Your task to perform on an android device: open device folders in google photos Image 0: 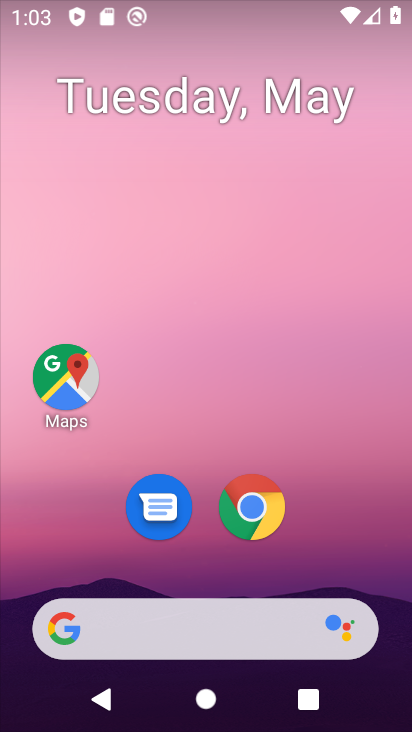
Step 0: drag from (327, 551) to (300, 15)
Your task to perform on an android device: open device folders in google photos Image 1: 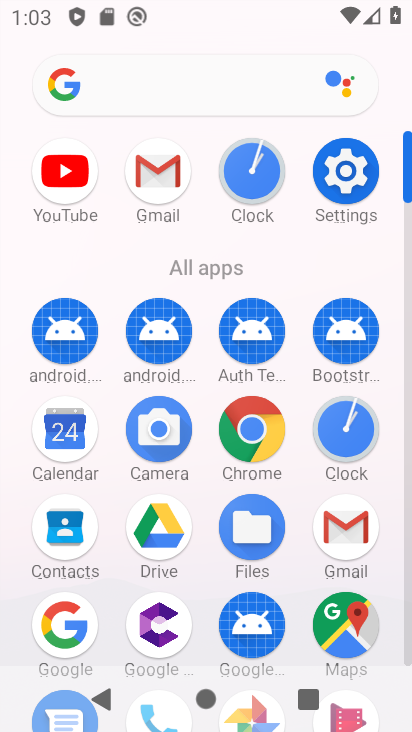
Step 1: click (408, 655)
Your task to perform on an android device: open device folders in google photos Image 2: 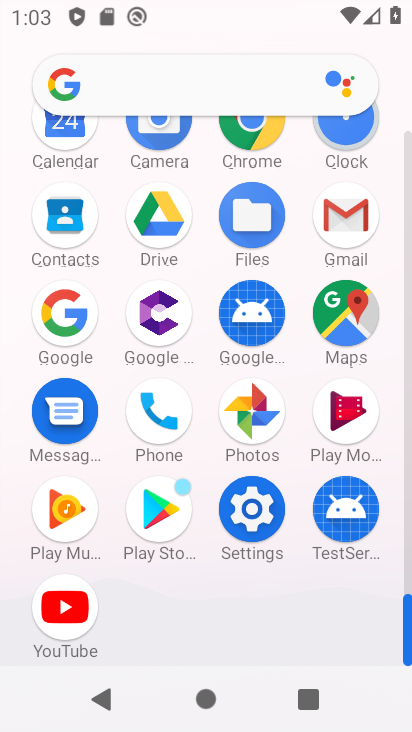
Step 2: click (238, 395)
Your task to perform on an android device: open device folders in google photos Image 3: 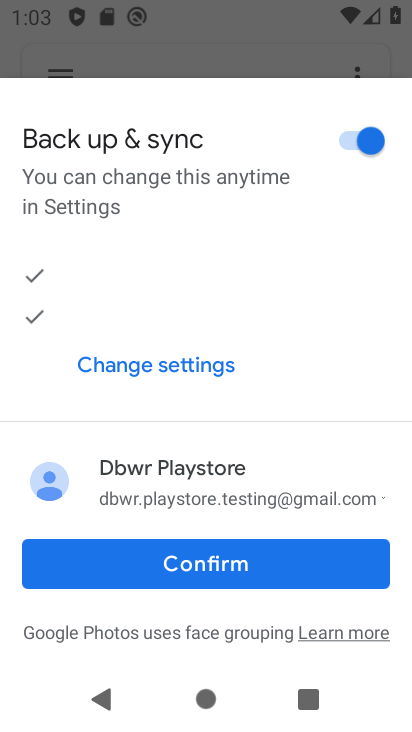
Step 3: click (68, 91)
Your task to perform on an android device: open device folders in google photos Image 4: 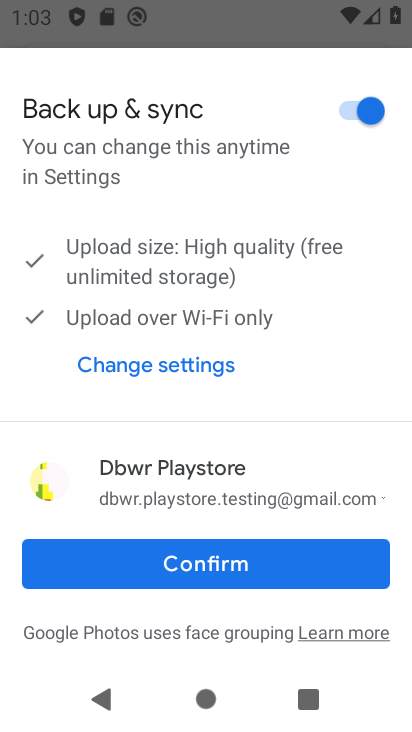
Step 4: click (205, 564)
Your task to perform on an android device: open device folders in google photos Image 5: 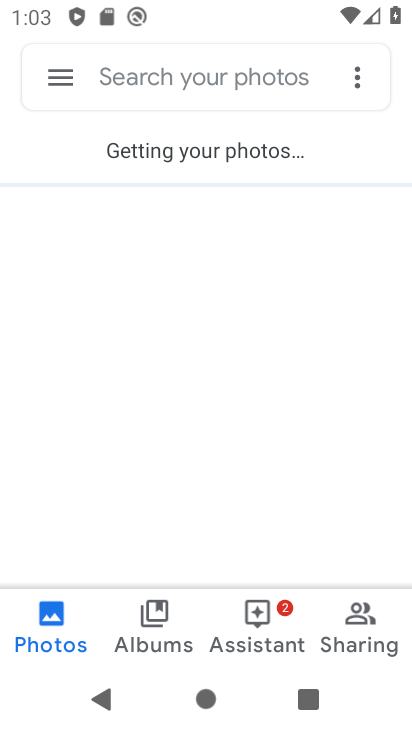
Step 5: click (55, 67)
Your task to perform on an android device: open device folders in google photos Image 6: 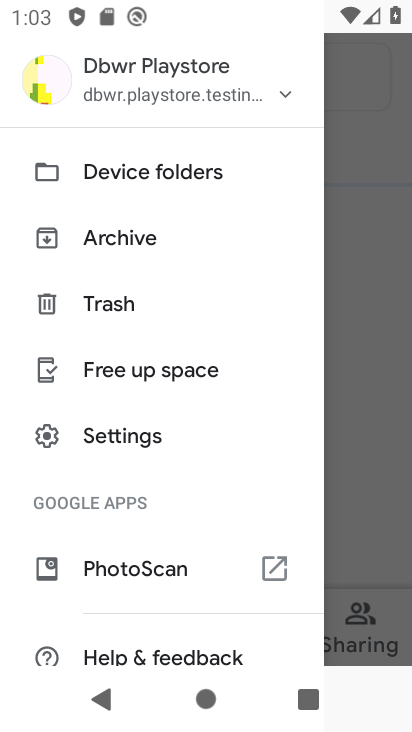
Step 6: click (146, 167)
Your task to perform on an android device: open device folders in google photos Image 7: 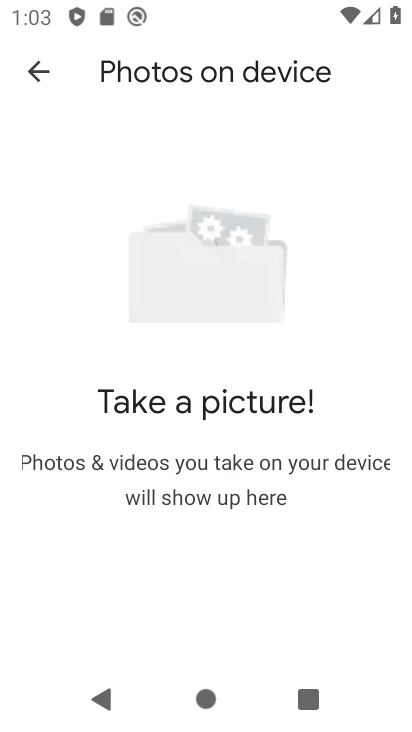
Step 7: task complete